Your task to perform on an android device: toggle notifications settings in the gmail app Image 0: 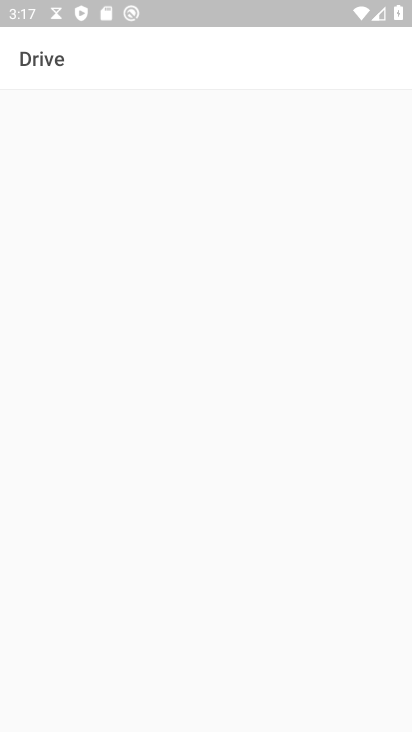
Step 0: press home button
Your task to perform on an android device: toggle notifications settings in the gmail app Image 1: 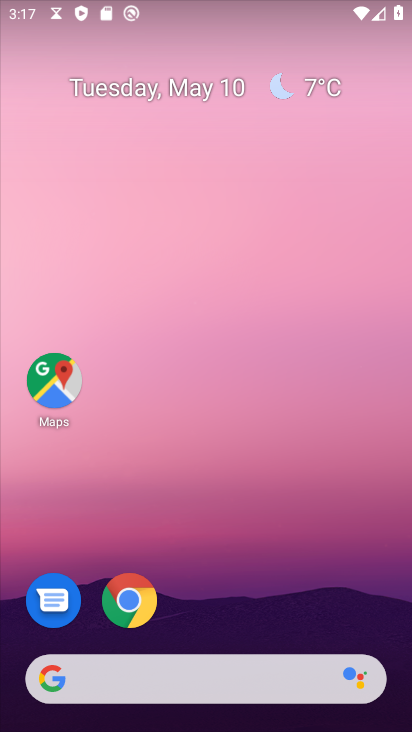
Step 1: drag from (271, 418) to (201, 17)
Your task to perform on an android device: toggle notifications settings in the gmail app Image 2: 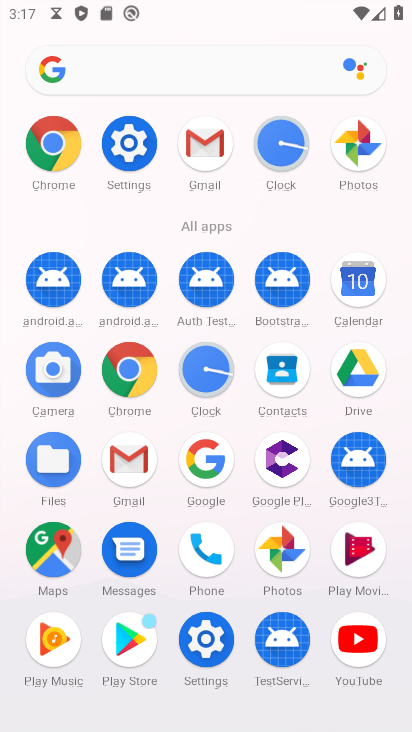
Step 2: drag from (179, 648) to (228, 363)
Your task to perform on an android device: toggle notifications settings in the gmail app Image 3: 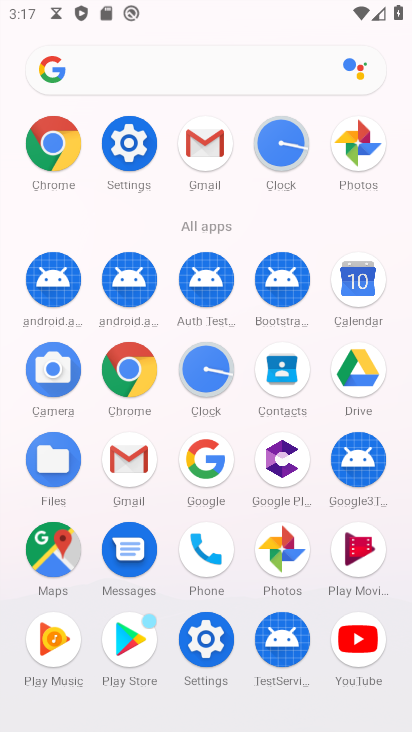
Step 3: click (135, 460)
Your task to perform on an android device: toggle notifications settings in the gmail app Image 4: 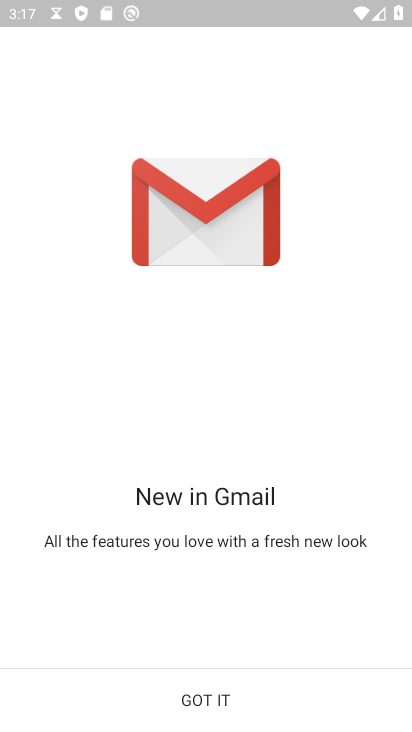
Step 4: task complete